Your task to perform on an android device: open wifi settings Image 0: 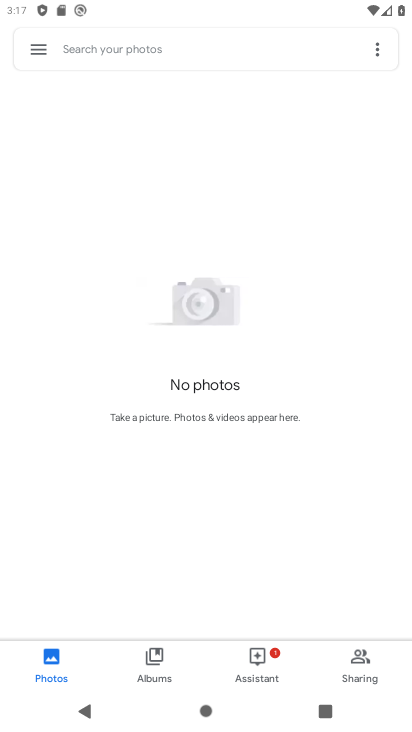
Step 0: press home button
Your task to perform on an android device: open wifi settings Image 1: 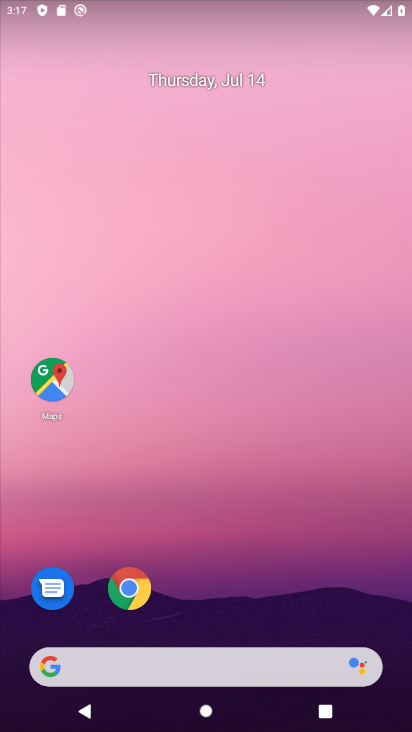
Step 1: drag from (254, 488) to (315, 2)
Your task to perform on an android device: open wifi settings Image 2: 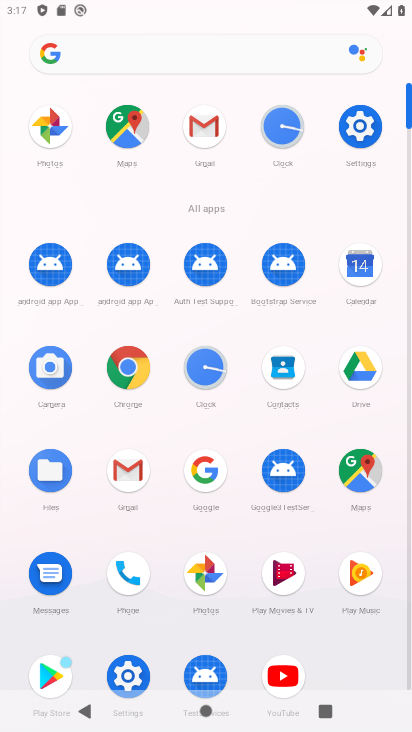
Step 2: click (365, 125)
Your task to perform on an android device: open wifi settings Image 3: 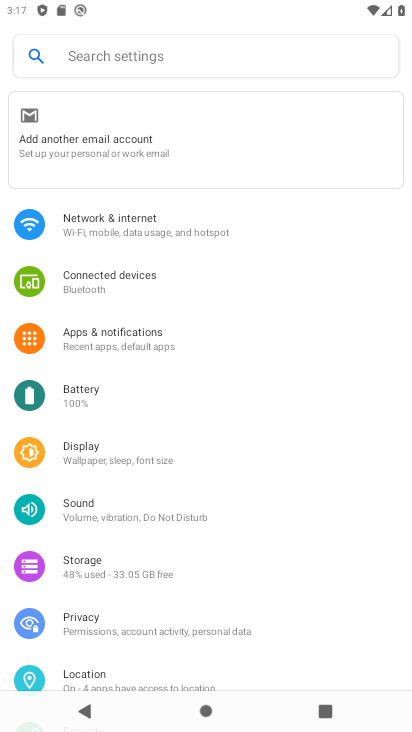
Step 3: click (130, 220)
Your task to perform on an android device: open wifi settings Image 4: 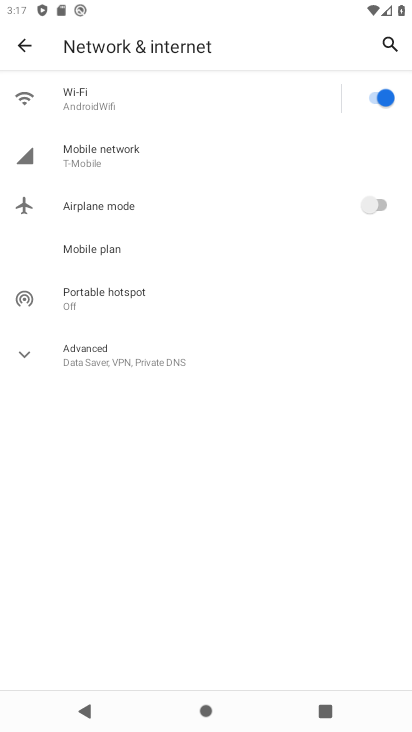
Step 4: task complete